Your task to perform on an android device: open chrome and create a bookmark for the current page Image 0: 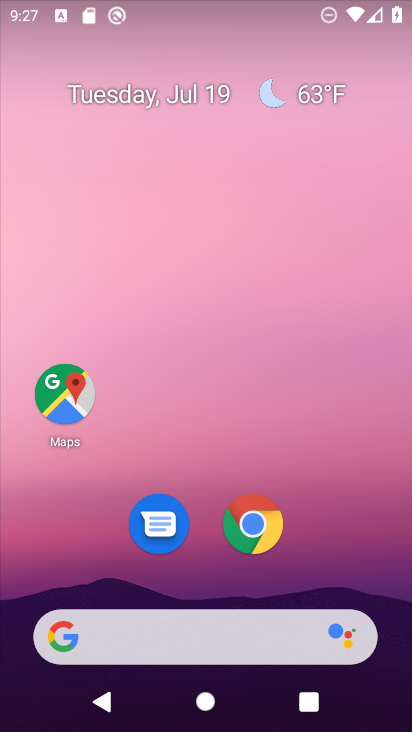
Step 0: click (249, 514)
Your task to perform on an android device: open chrome and create a bookmark for the current page Image 1: 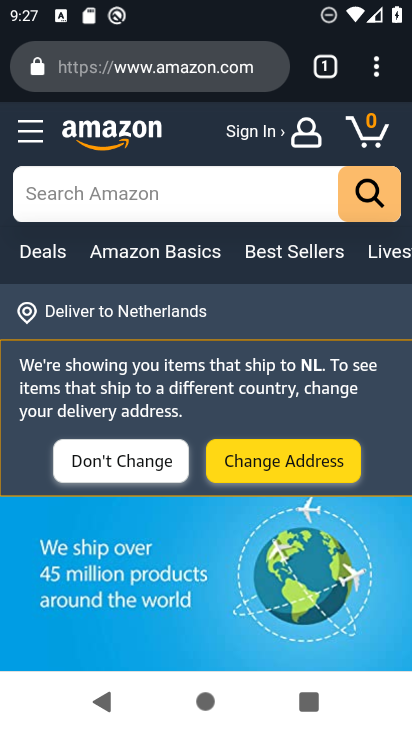
Step 1: click (378, 71)
Your task to perform on an android device: open chrome and create a bookmark for the current page Image 2: 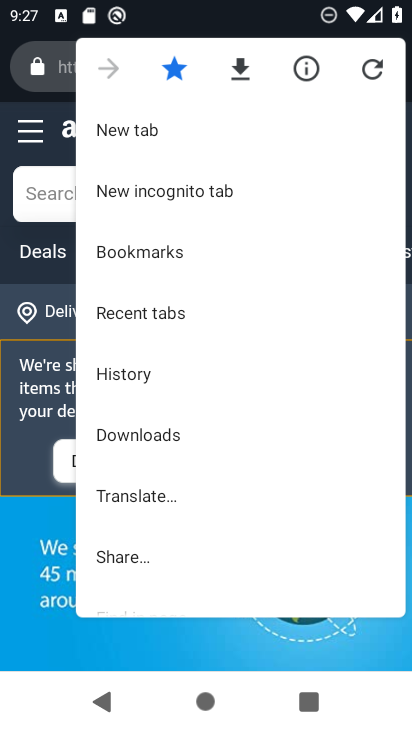
Step 2: click (212, 20)
Your task to perform on an android device: open chrome and create a bookmark for the current page Image 3: 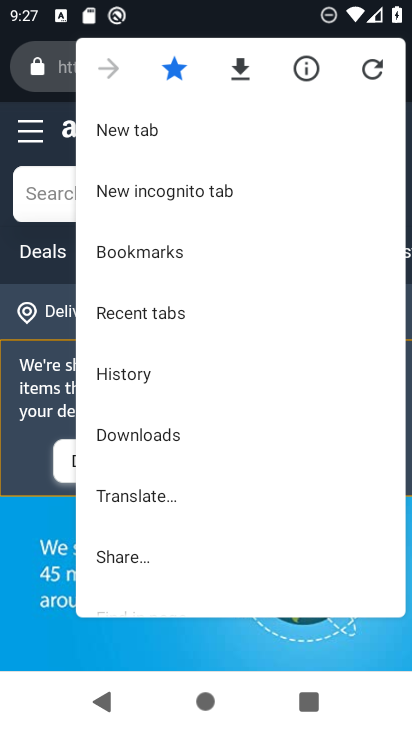
Step 3: click (180, 633)
Your task to perform on an android device: open chrome and create a bookmark for the current page Image 4: 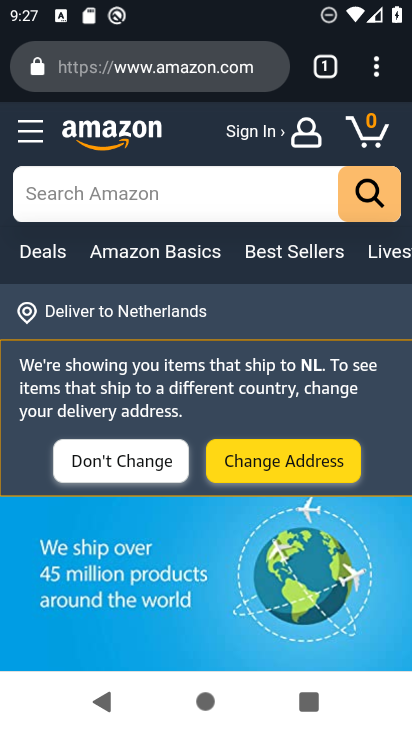
Step 4: task complete